Your task to perform on an android device: Open notification settings Image 0: 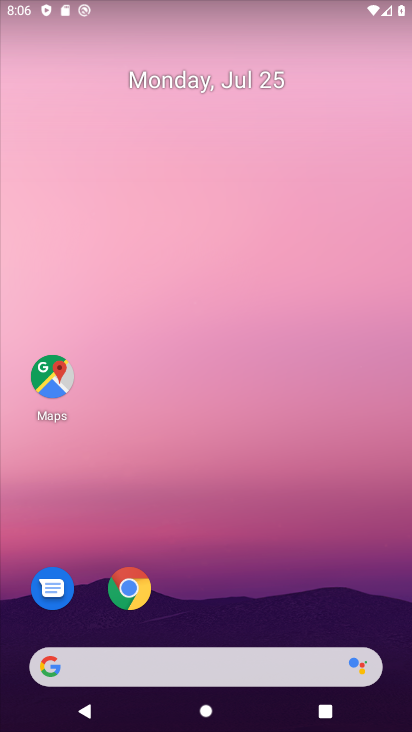
Step 0: drag from (191, 548) to (206, 298)
Your task to perform on an android device: Open notification settings Image 1: 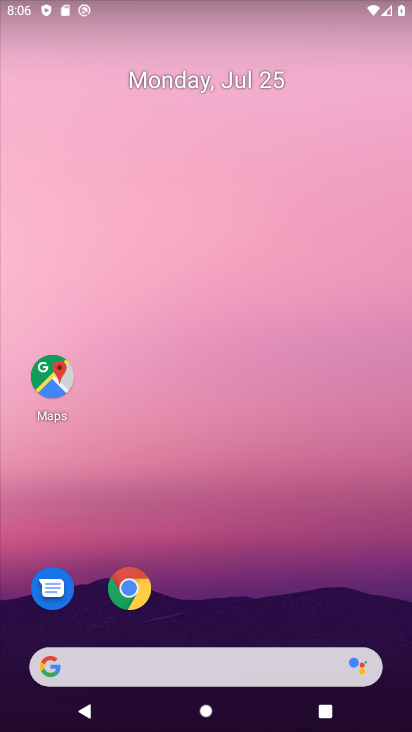
Step 1: drag from (201, 637) to (201, 130)
Your task to perform on an android device: Open notification settings Image 2: 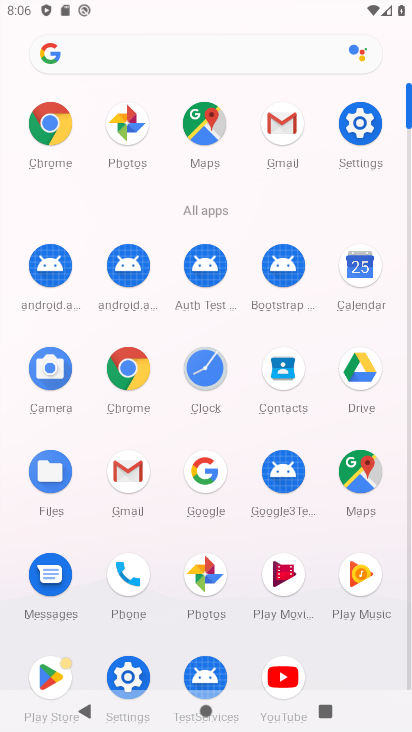
Step 2: click (350, 138)
Your task to perform on an android device: Open notification settings Image 3: 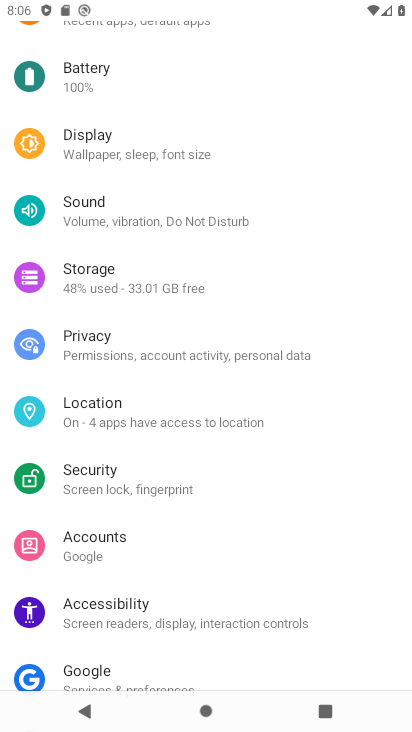
Step 3: drag from (129, 102) to (169, 542)
Your task to perform on an android device: Open notification settings Image 4: 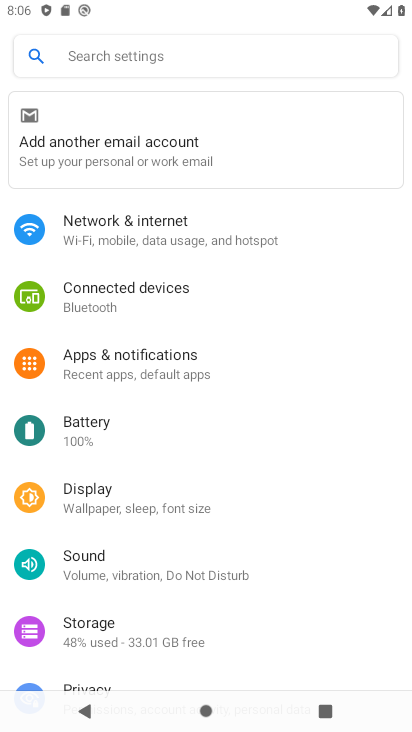
Step 4: click (125, 356)
Your task to perform on an android device: Open notification settings Image 5: 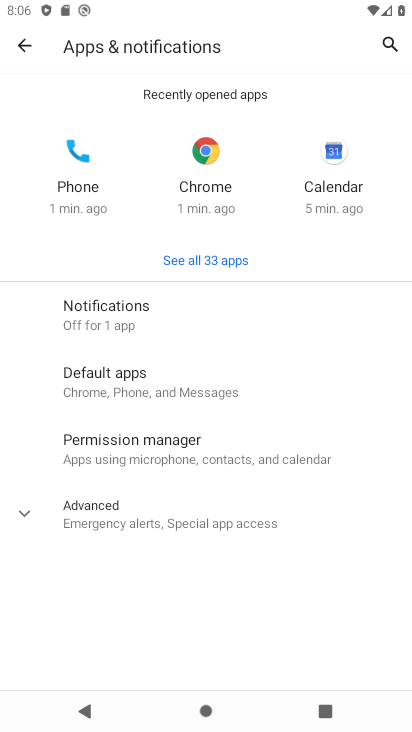
Step 5: click (104, 314)
Your task to perform on an android device: Open notification settings Image 6: 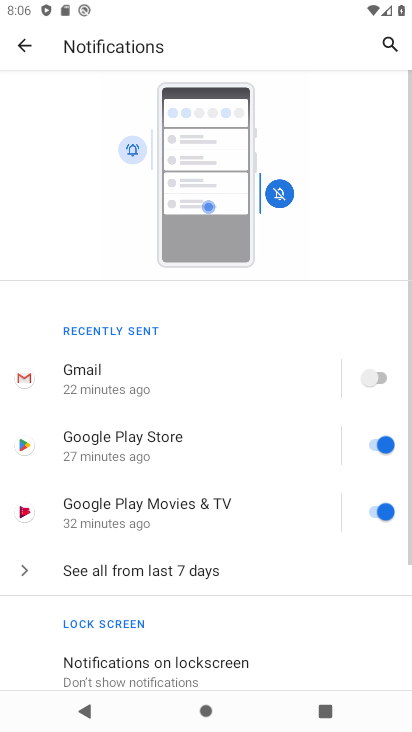
Step 6: drag from (211, 636) to (219, 203)
Your task to perform on an android device: Open notification settings Image 7: 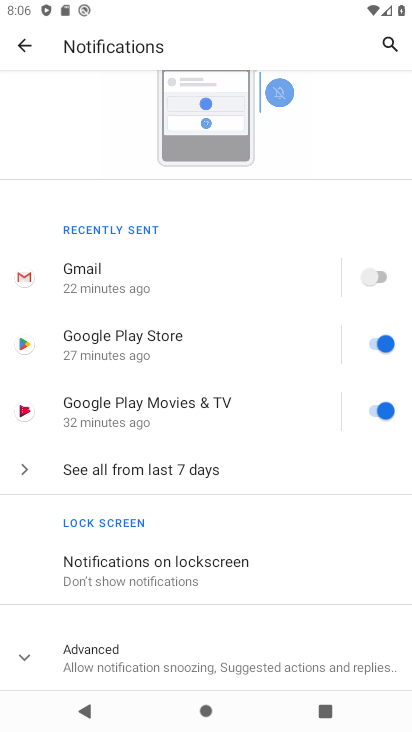
Step 7: click (101, 643)
Your task to perform on an android device: Open notification settings Image 8: 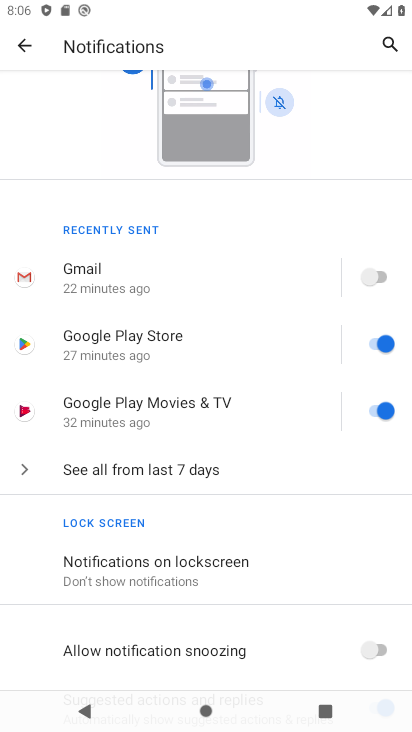
Step 8: task complete